Your task to perform on an android device: turn off location Image 0: 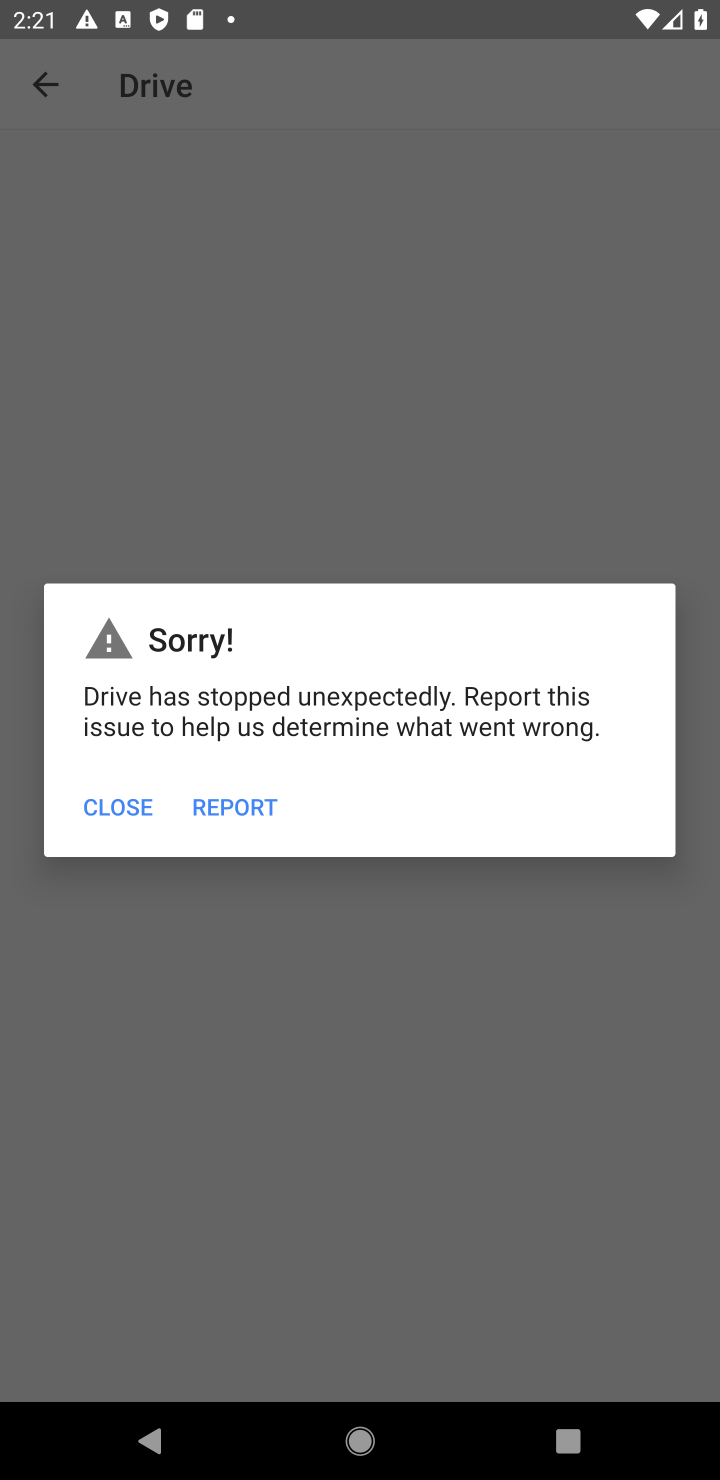
Step 0: press home button
Your task to perform on an android device: turn off location Image 1: 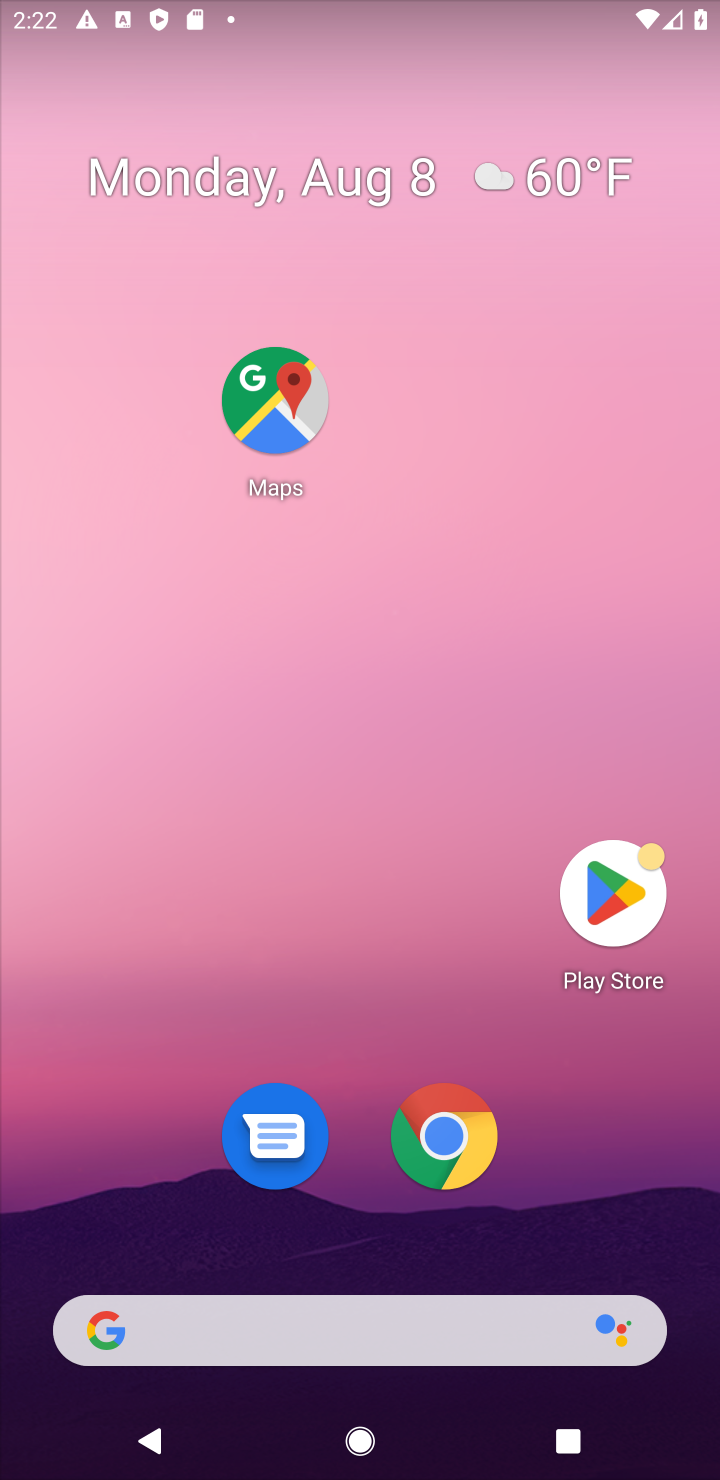
Step 1: task complete